Your task to perform on an android device: Clear the cart on walmart. Add asus zenbook to the cart on walmart Image 0: 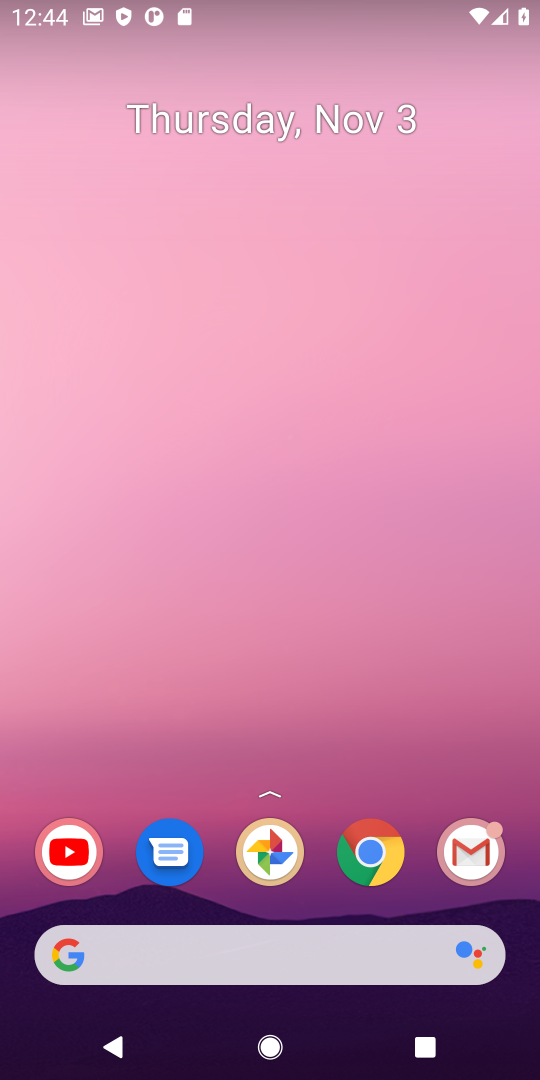
Step 0: click (378, 858)
Your task to perform on an android device: Clear the cart on walmart. Add asus zenbook to the cart on walmart Image 1: 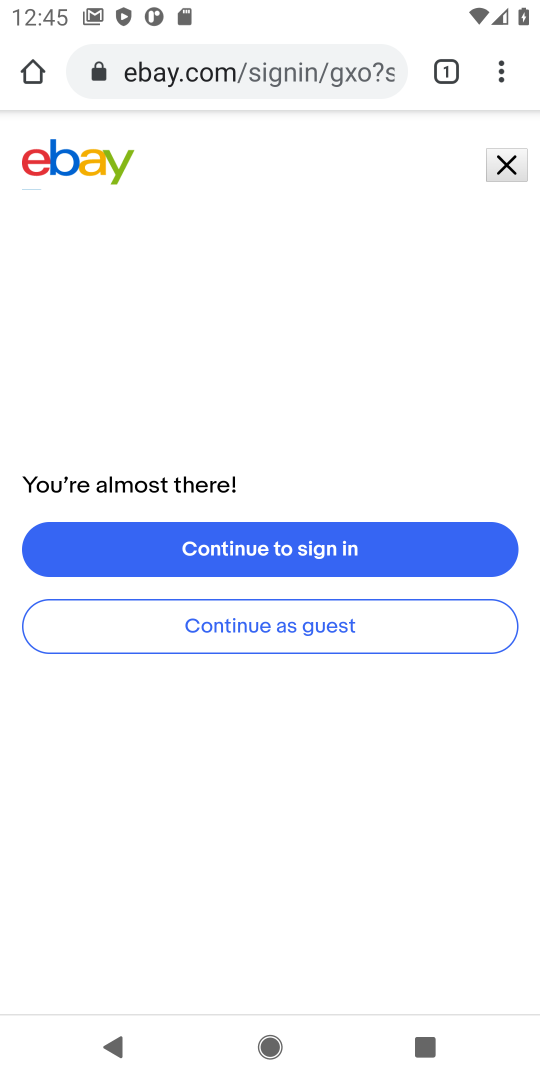
Step 1: click (186, 76)
Your task to perform on an android device: Clear the cart on walmart. Add asus zenbook to the cart on walmart Image 2: 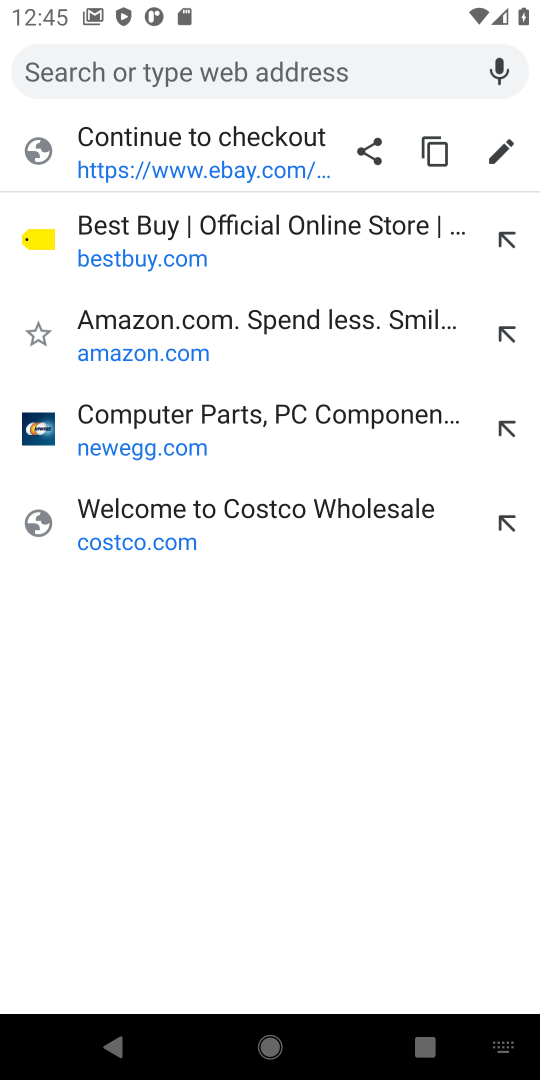
Step 2: type "walmart.com"
Your task to perform on an android device: Clear the cart on walmart. Add asus zenbook to the cart on walmart Image 3: 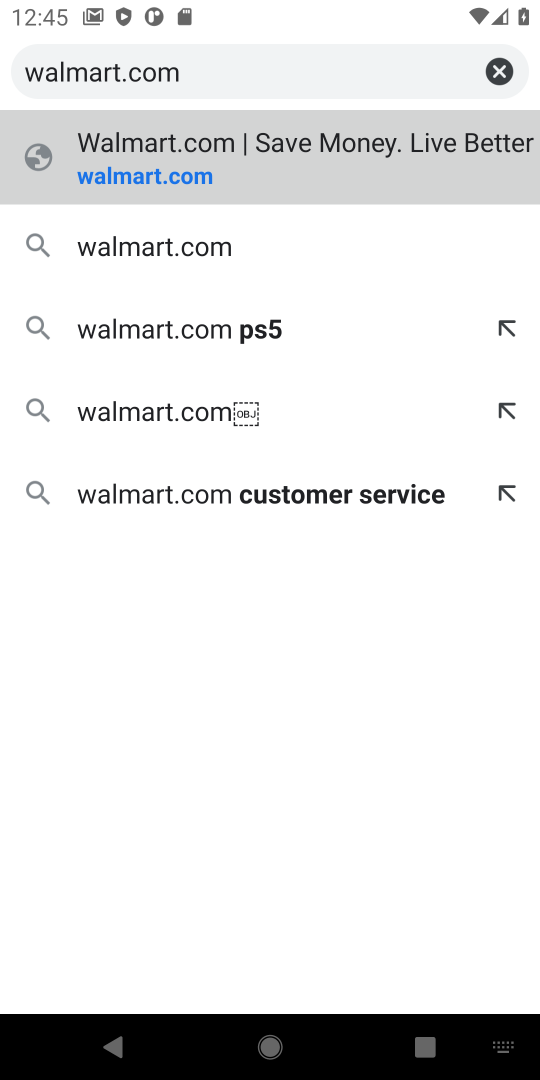
Step 3: click (166, 173)
Your task to perform on an android device: Clear the cart on walmart. Add asus zenbook to the cart on walmart Image 4: 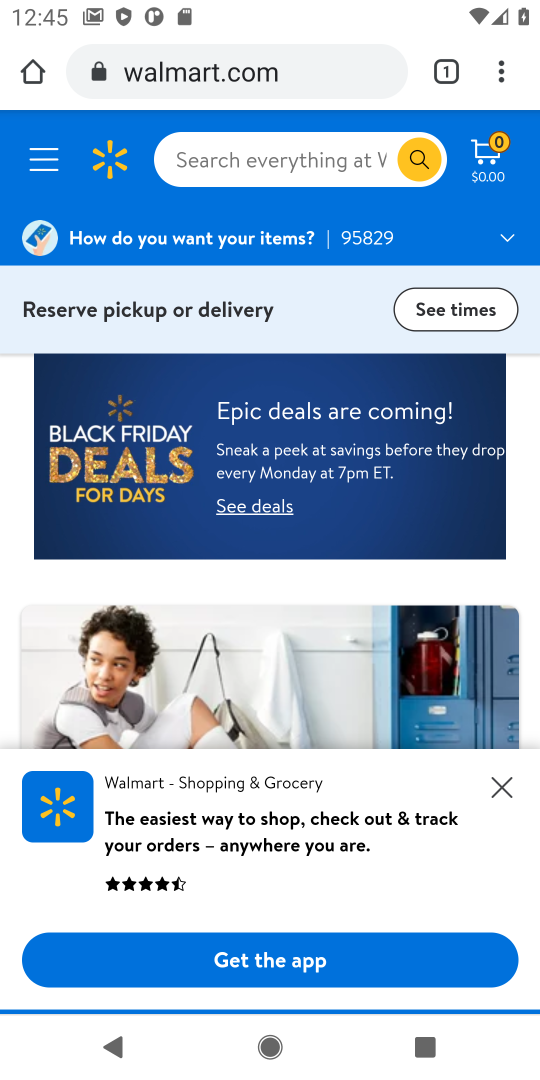
Step 4: click (489, 155)
Your task to perform on an android device: Clear the cart on walmart. Add asus zenbook to the cart on walmart Image 5: 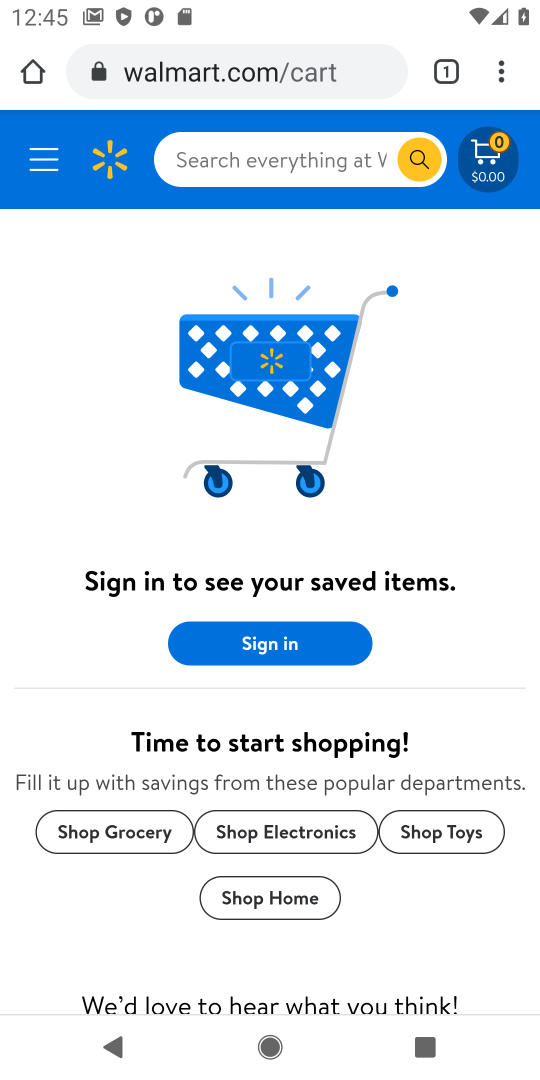
Step 5: click (225, 163)
Your task to perform on an android device: Clear the cart on walmart. Add asus zenbook to the cart on walmart Image 6: 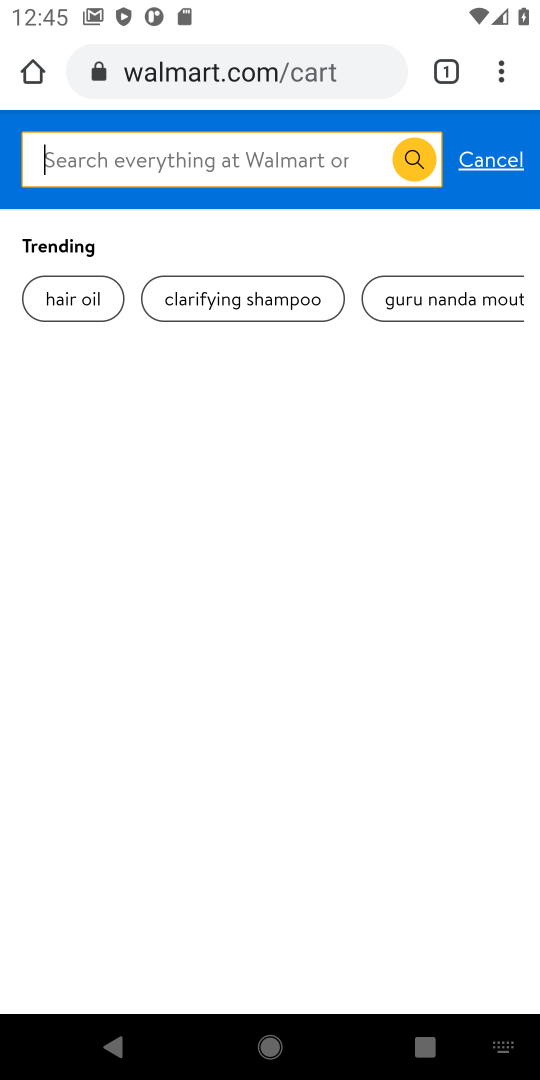
Step 6: type "asus zenbook"
Your task to perform on an android device: Clear the cart on walmart. Add asus zenbook to the cart on walmart Image 7: 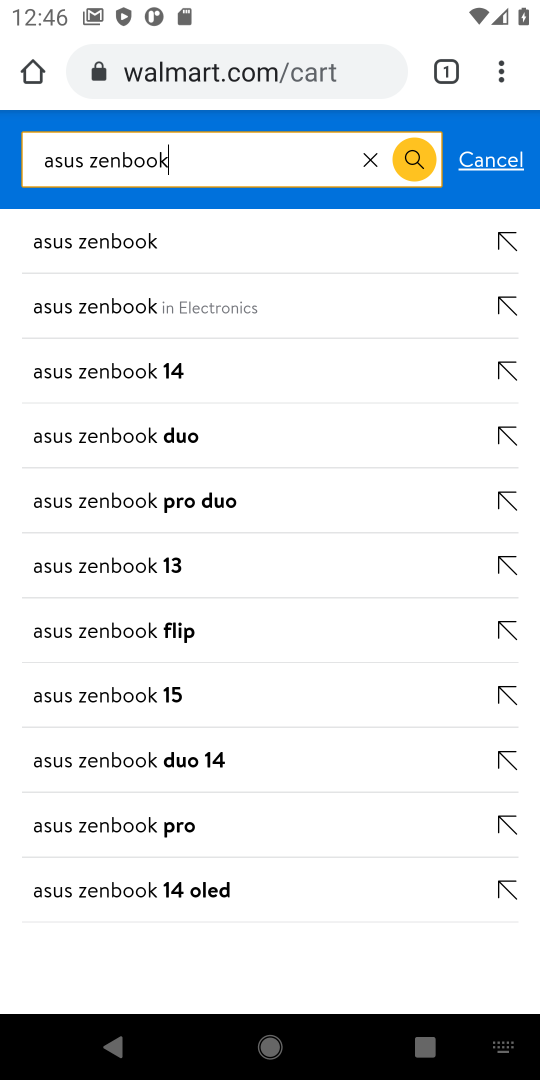
Step 7: click (61, 248)
Your task to perform on an android device: Clear the cart on walmart. Add asus zenbook to the cart on walmart Image 8: 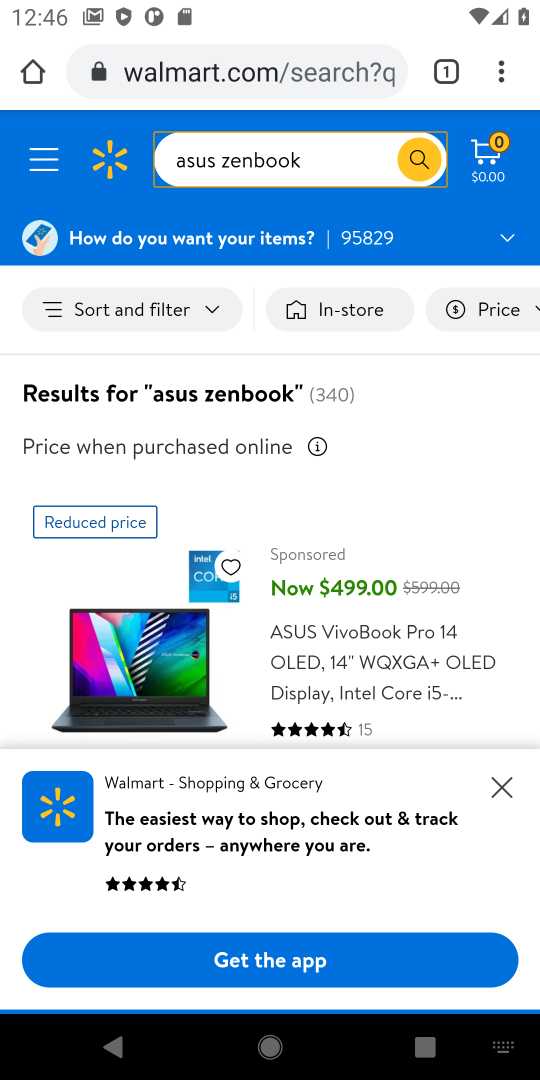
Step 8: drag from (241, 665) to (266, 332)
Your task to perform on an android device: Clear the cart on walmart. Add asus zenbook to the cart on walmart Image 9: 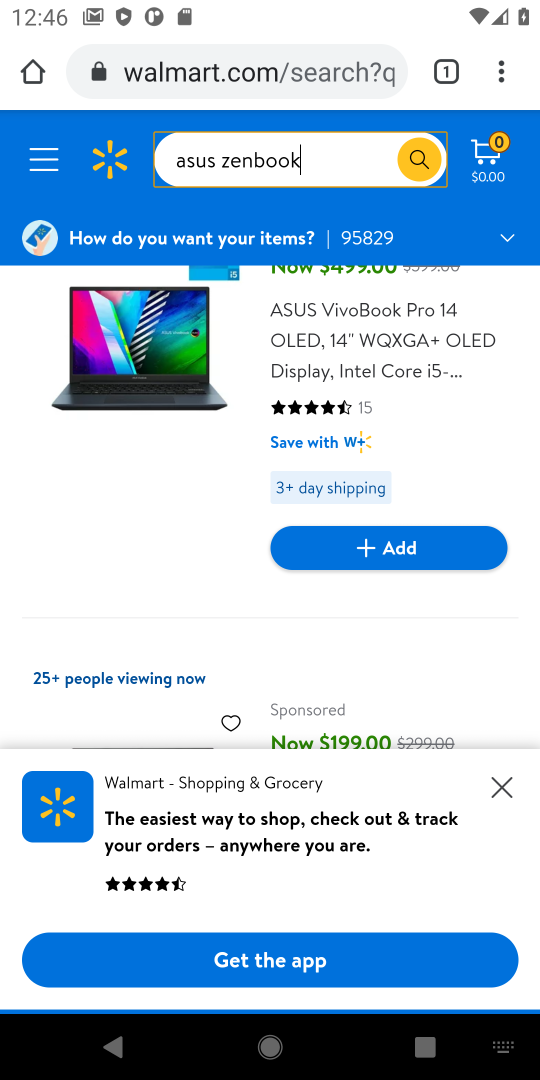
Step 9: drag from (202, 606) to (200, 264)
Your task to perform on an android device: Clear the cart on walmart. Add asus zenbook to the cart on walmart Image 10: 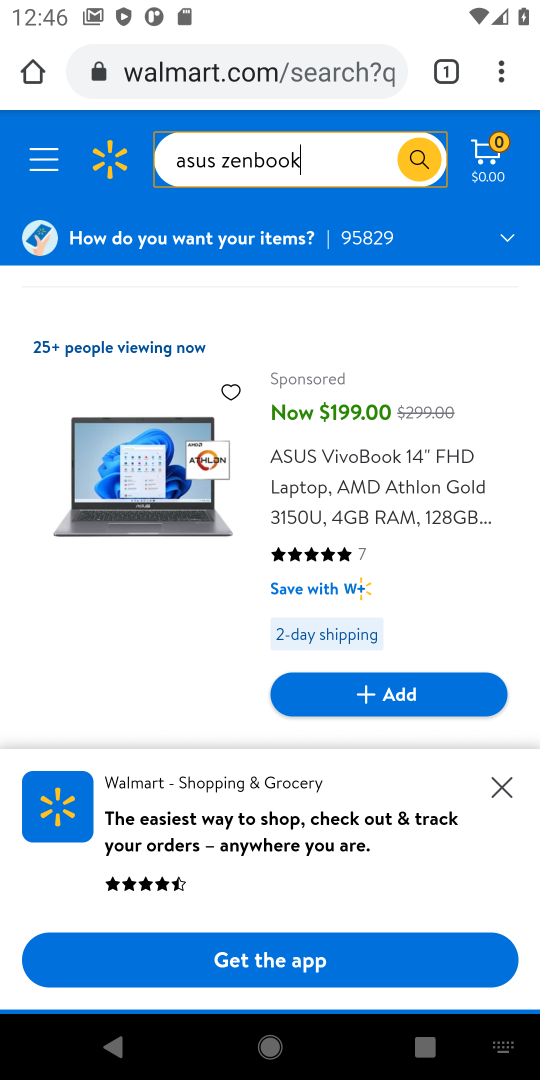
Step 10: drag from (209, 619) to (211, 345)
Your task to perform on an android device: Clear the cart on walmart. Add asus zenbook to the cart on walmart Image 11: 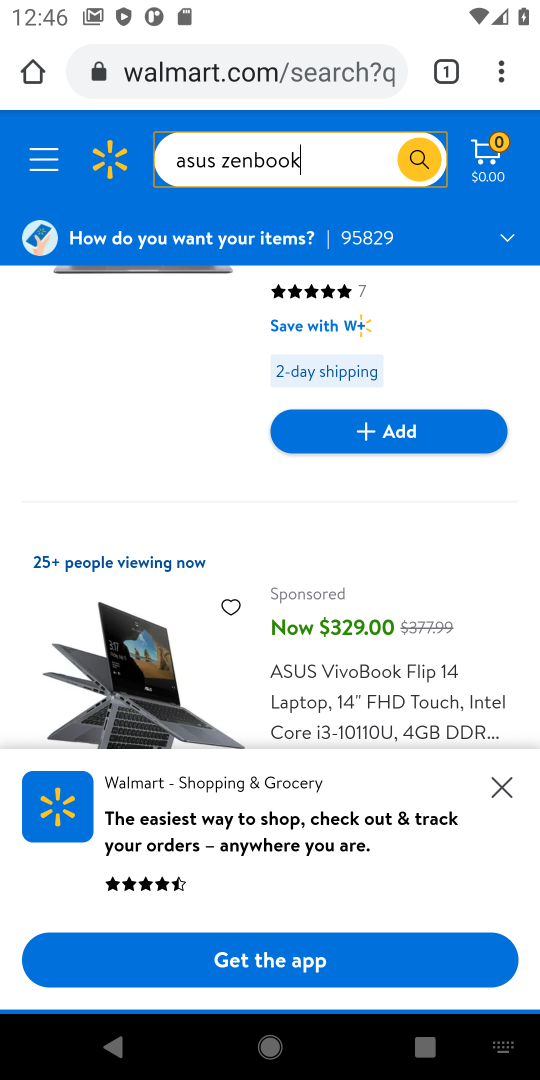
Step 11: drag from (179, 617) to (216, 357)
Your task to perform on an android device: Clear the cart on walmart. Add asus zenbook to the cart on walmart Image 12: 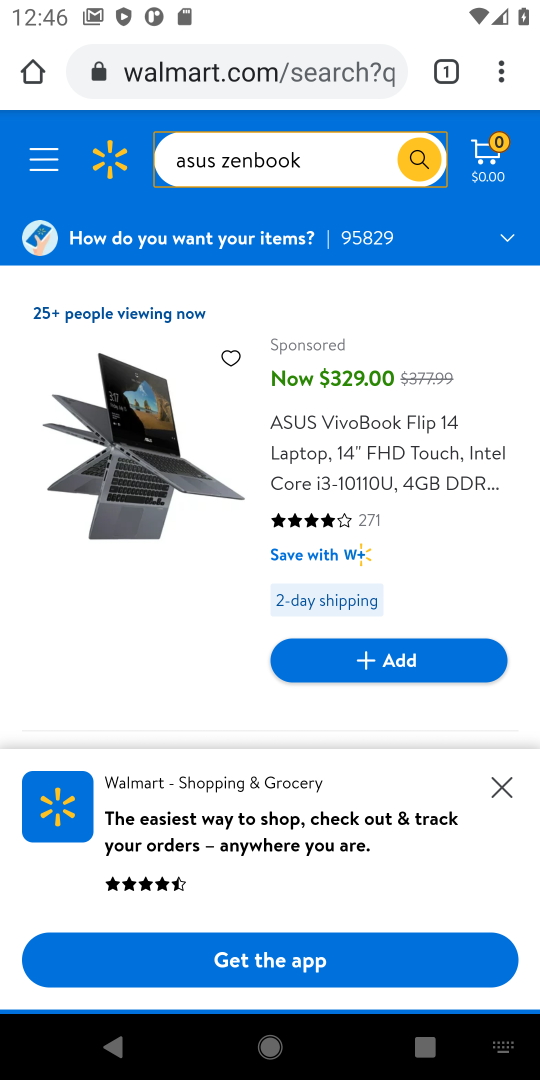
Step 12: drag from (188, 628) to (230, 266)
Your task to perform on an android device: Clear the cart on walmart. Add asus zenbook to the cart on walmart Image 13: 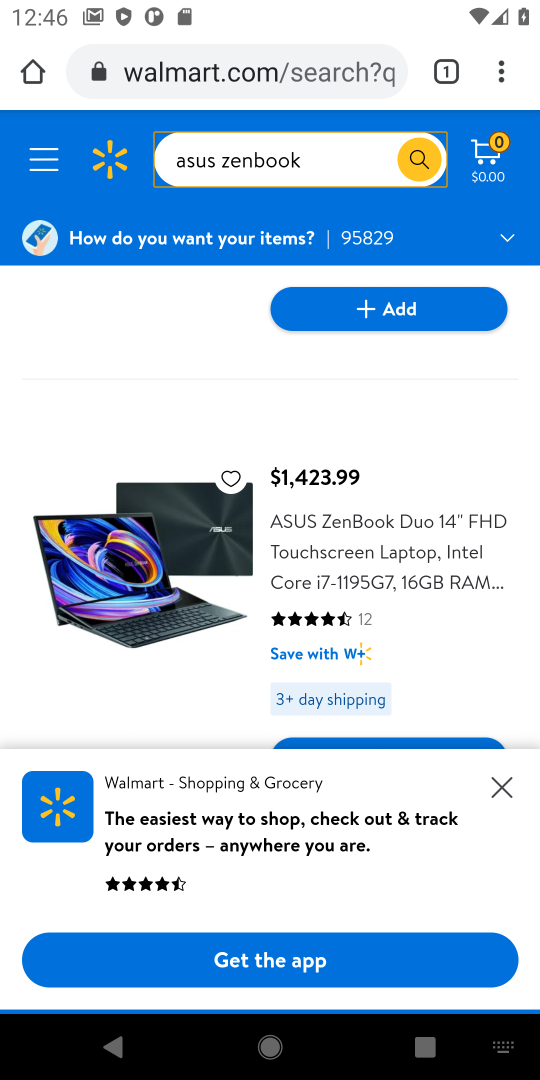
Step 13: click (350, 586)
Your task to perform on an android device: Clear the cart on walmart. Add asus zenbook to the cart on walmart Image 14: 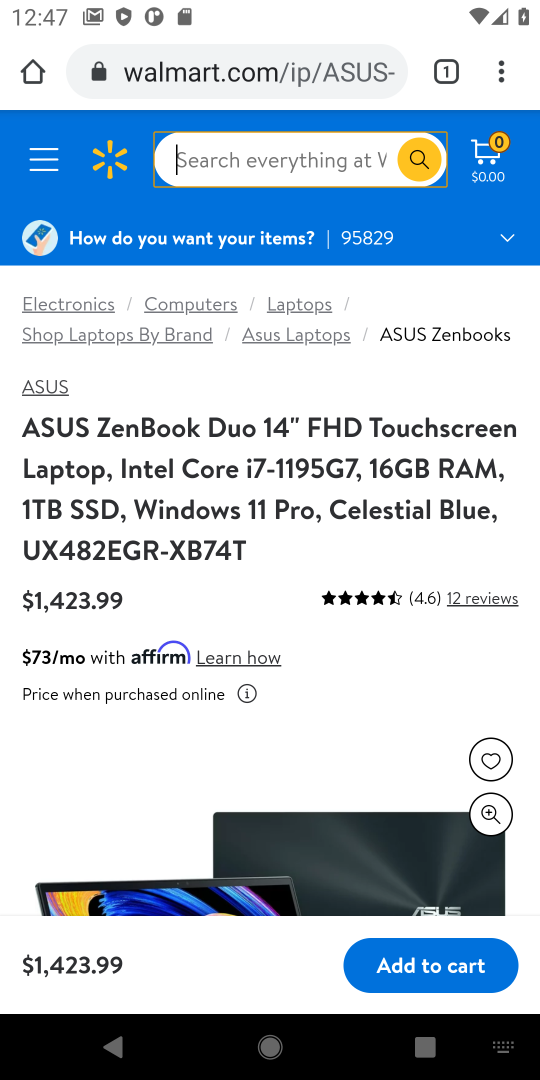
Step 14: click (409, 971)
Your task to perform on an android device: Clear the cart on walmart. Add asus zenbook to the cart on walmart Image 15: 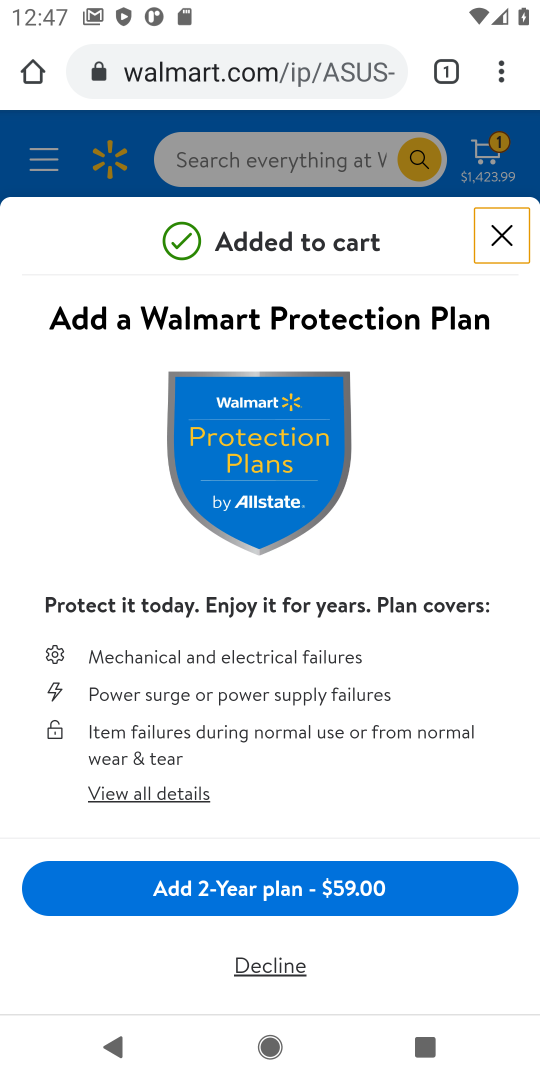
Step 15: task complete